Your task to perform on an android device: set the timer Image 0: 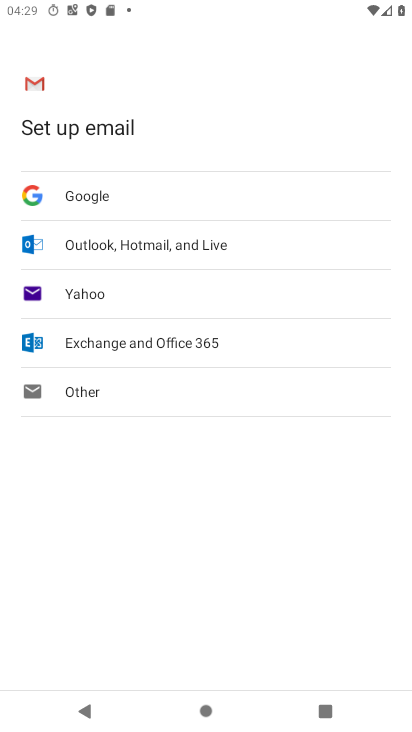
Step 0: press home button
Your task to perform on an android device: set the timer Image 1: 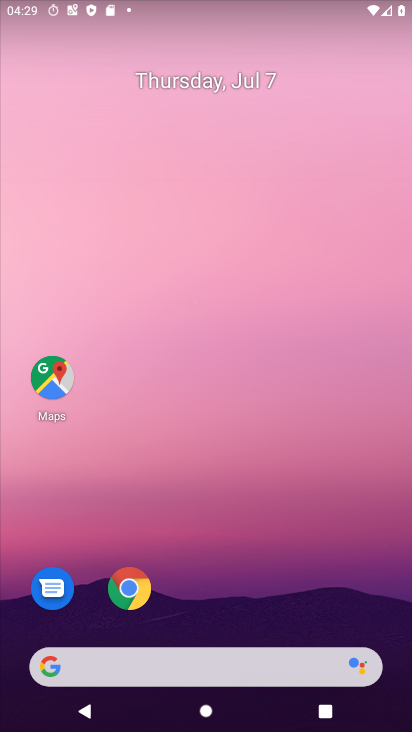
Step 1: drag from (352, 620) to (356, 251)
Your task to perform on an android device: set the timer Image 2: 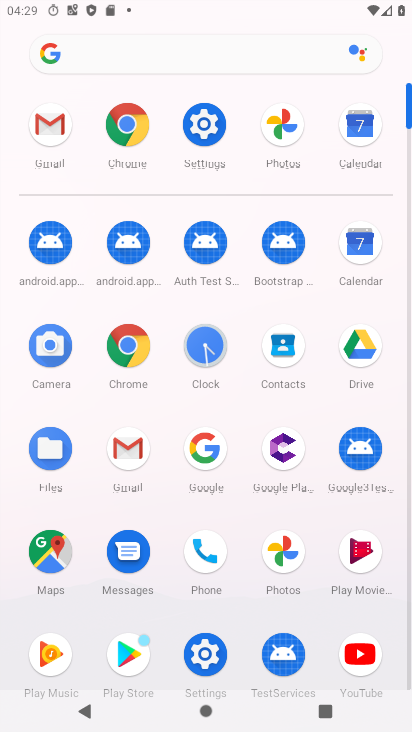
Step 2: click (195, 343)
Your task to perform on an android device: set the timer Image 3: 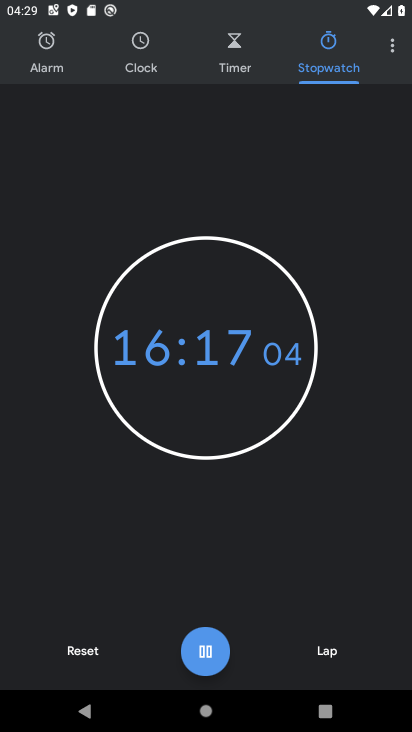
Step 3: click (237, 46)
Your task to perform on an android device: set the timer Image 4: 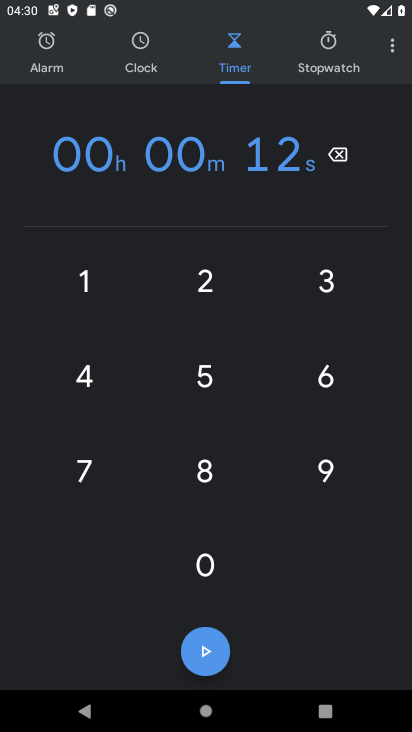
Step 4: click (182, 161)
Your task to perform on an android device: set the timer Image 5: 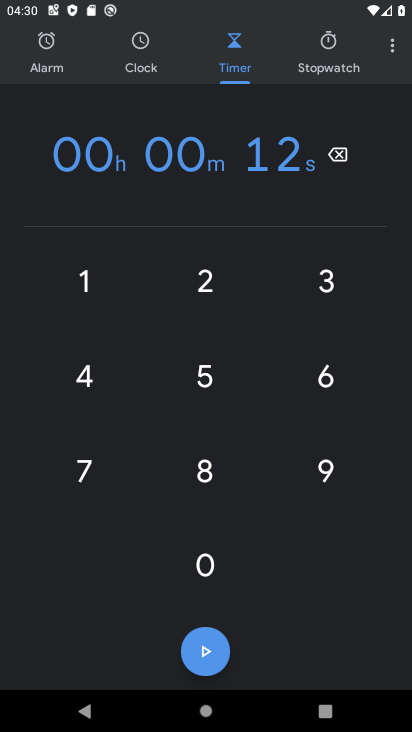
Step 5: click (203, 288)
Your task to perform on an android device: set the timer Image 6: 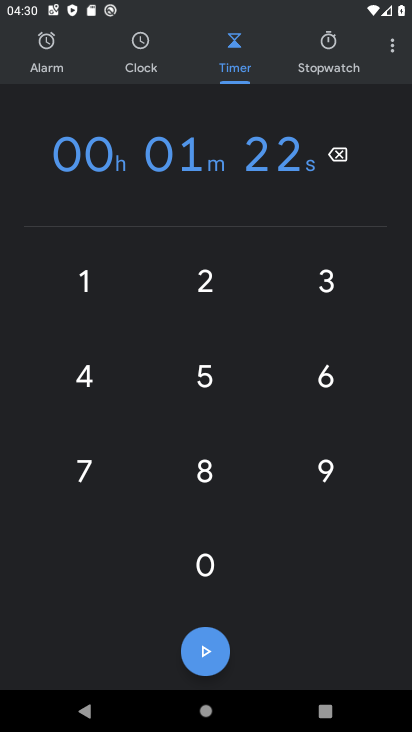
Step 6: click (207, 287)
Your task to perform on an android device: set the timer Image 7: 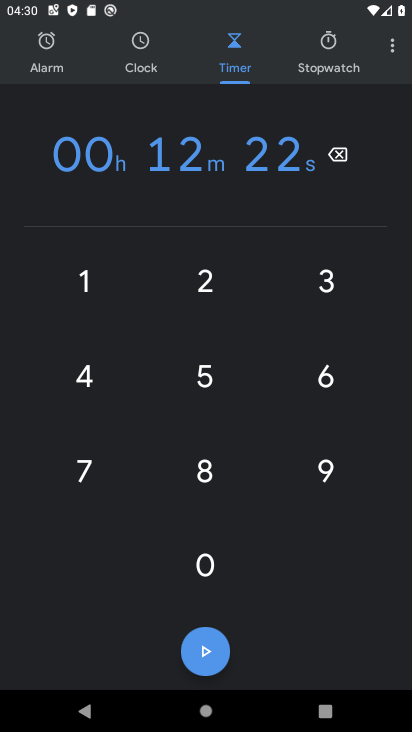
Step 7: click (203, 364)
Your task to perform on an android device: set the timer Image 8: 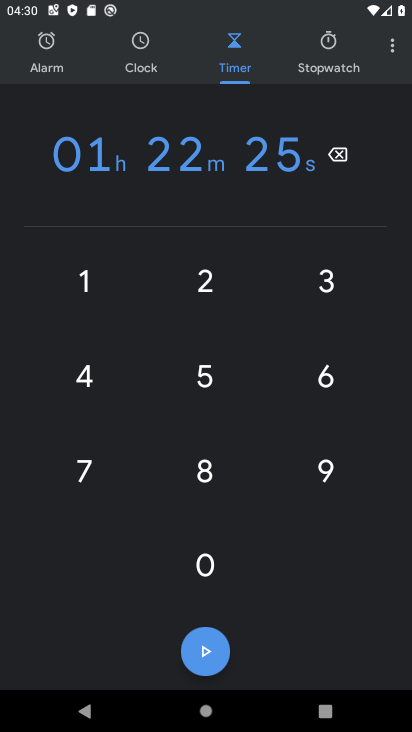
Step 8: click (203, 364)
Your task to perform on an android device: set the timer Image 9: 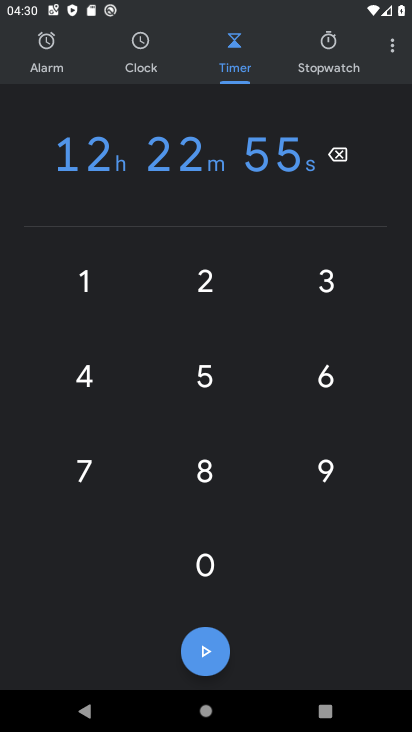
Step 9: click (206, 647)
Your task to perform on an android device: set the timer Image 10: 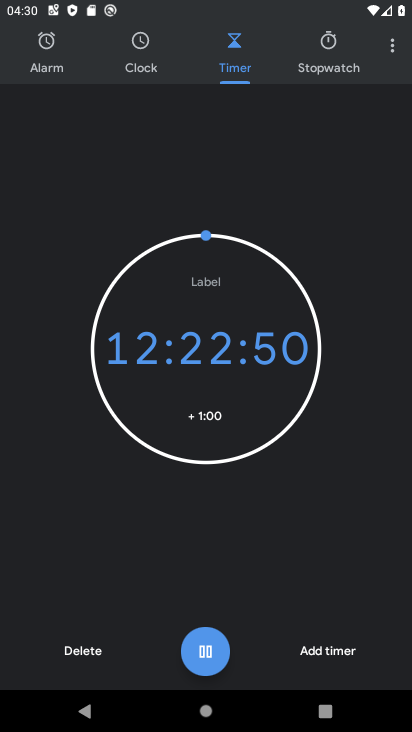
Step 10: task complete